Your task to perform on an android device: Open Youtube and go to the subscriptions tab Image 0: 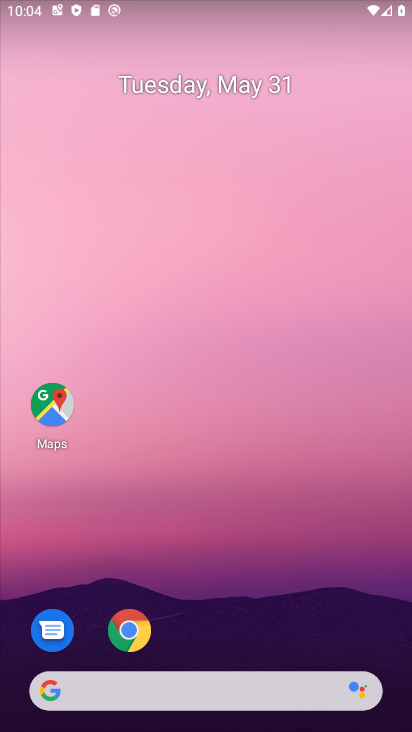
Step 0: drag from (253, 529) to (357, 79)
Your task to perform on an android device: Open Youtube and go to the subscriptions tab Image 1: 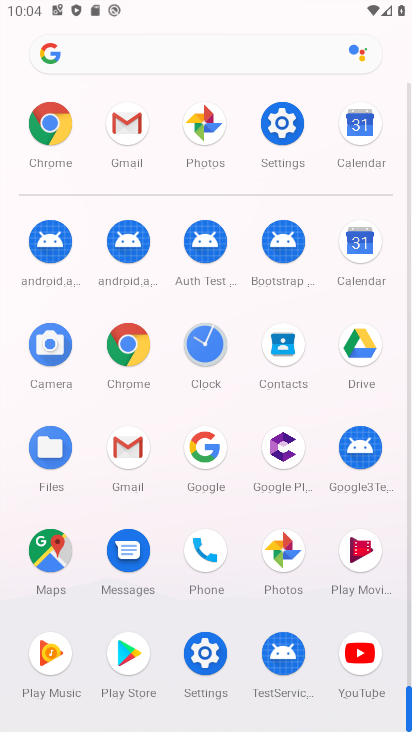
Step 1: drag from (262, 576) to (294, 187)
Your task to perform on an android device: Open Youtube and go to the subscriptions tab Image 2: 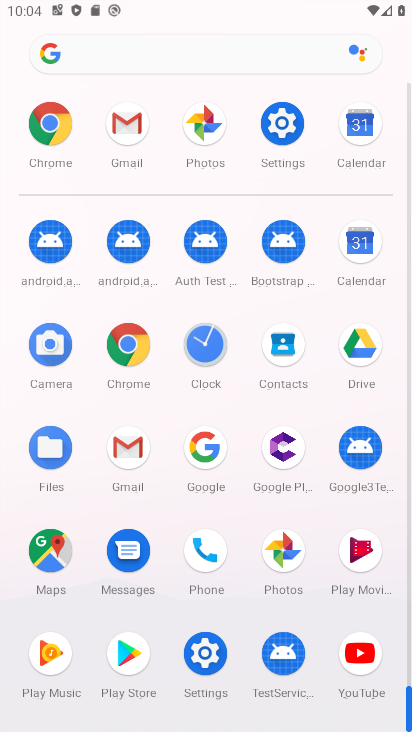
Step 2: click (350, 654)
Your task to perform on an android device: Open Youtube and go to the subscriptions tab Image 3: 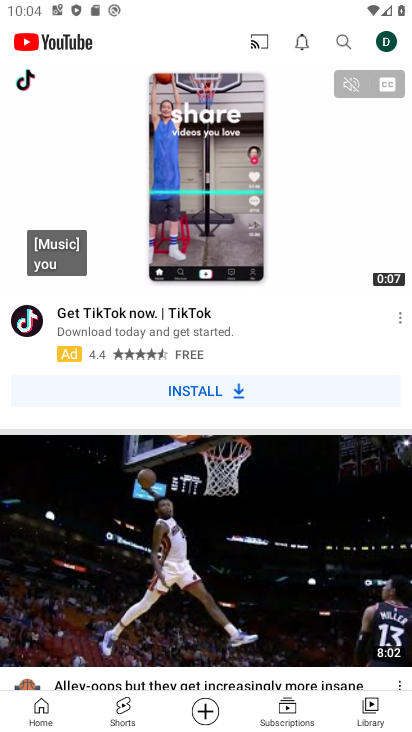
Step 3: click (280, 713)
Your task to perform on an android device: Open Youtube and go to the subscriptions tab Image 4: 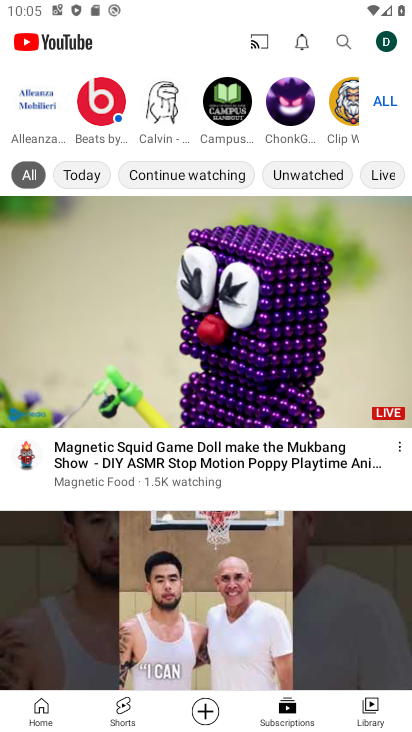
Step 4: task complete